Your task to perform on an android device: check the backup settings in the google photos Image 0: 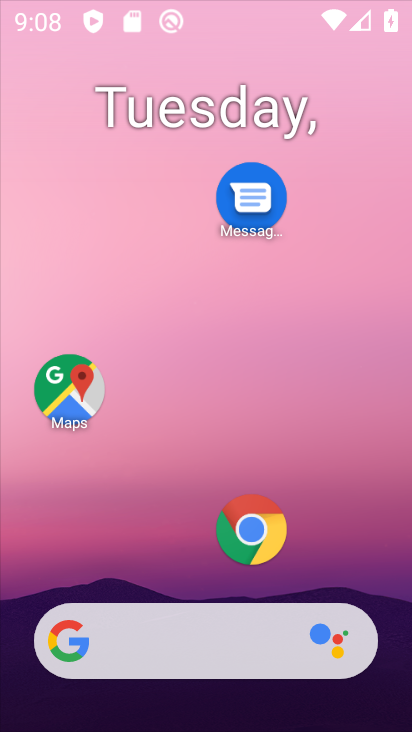
Step 0: drag from (210, 557) to (196, 7)
Your task to perform on an android device: check the backup settings in the google photos Image 1: 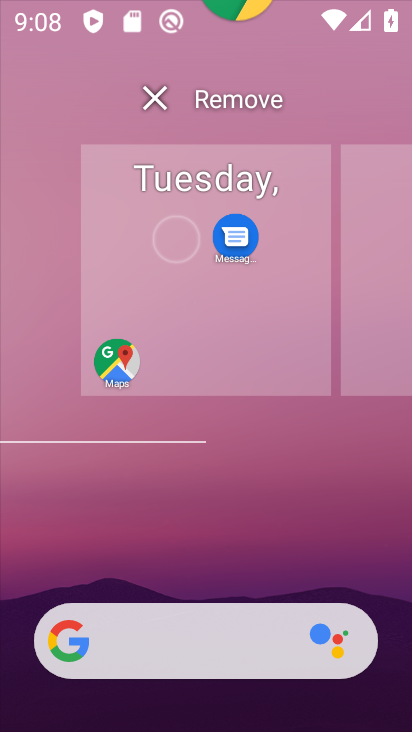
Step 1: drag from (250, 563) to (242, 9)
Your task to perform on an android device: check the backup settings in the google photos Image 2: 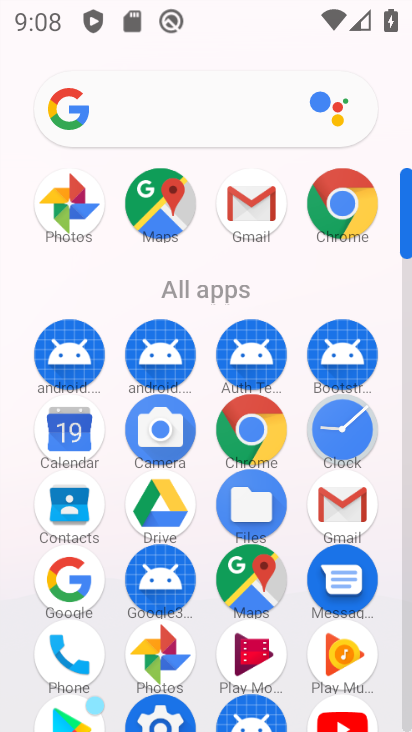
Step 2: click (180, 643)
Your task to perform on an android device: check the backup settings in the google photos Image 3: 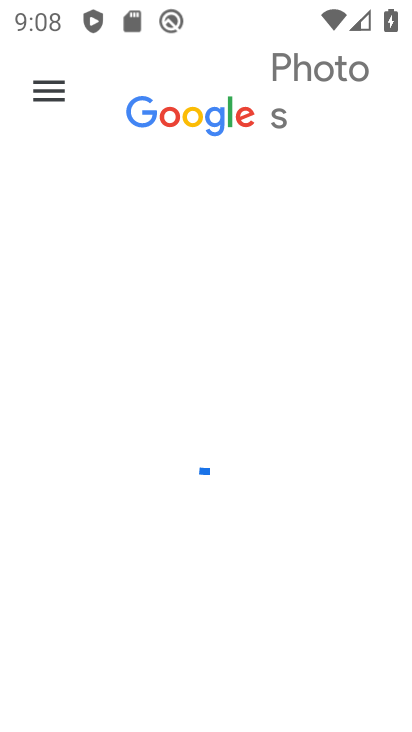
Step 3: click (43, 87)
Your task to perform on an android device: check the backup settings in the google photos Image 4: 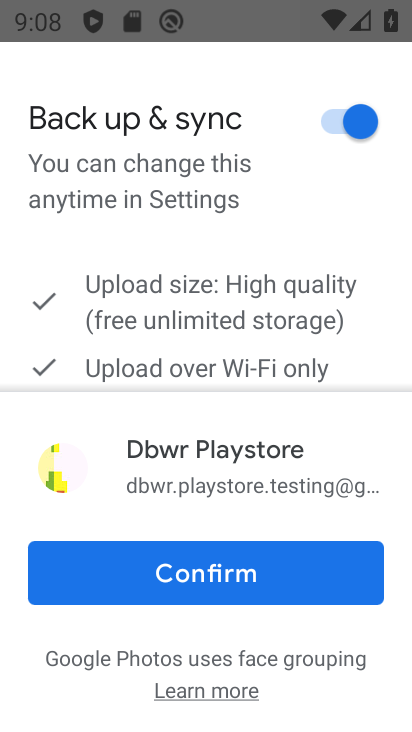
Step 4: drag from (220, 355) to (189, 95)
Your task to perform on an android device: check the backup settings in the google photos Image 5: 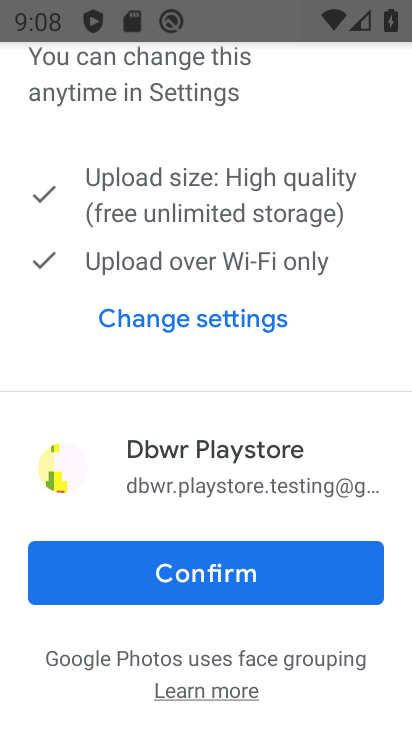
Step 5: click (207, 321)
Your task to perform on an android device: check the backup settings in the google photos Image 6: 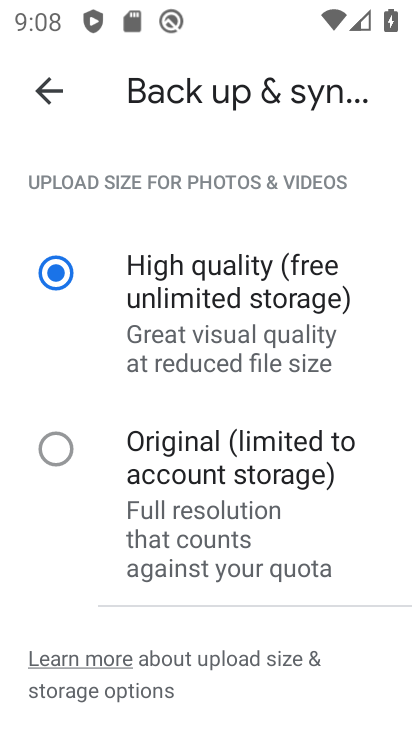
Step 6: task complete